Your task to perform on an android device: turn on wifi Image 0: 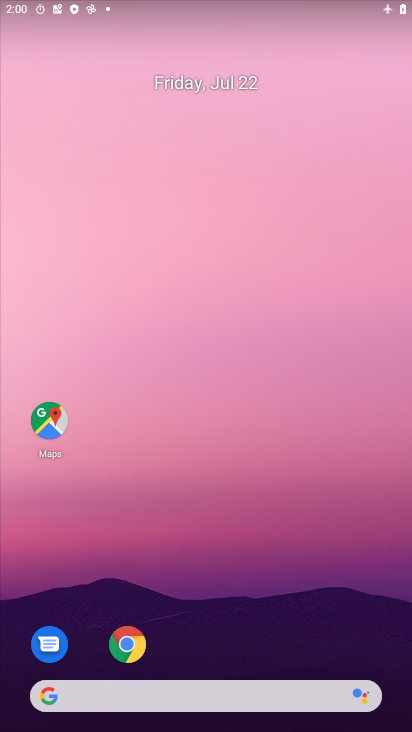
Step 0: drag from (231, 714) to (221, 199)
Your task to perform on an android device: turn on wifi Image 1: 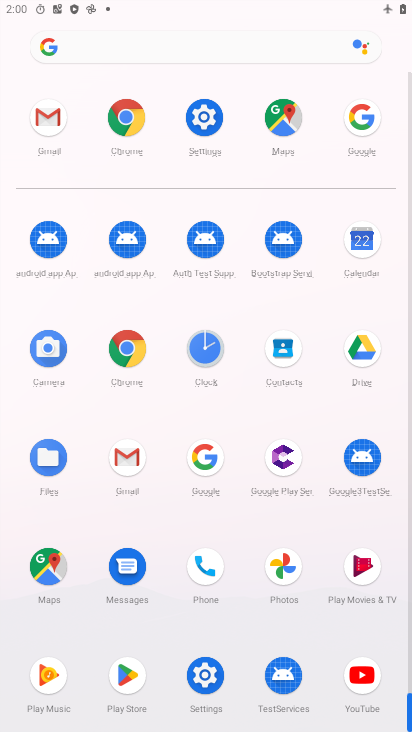
Step 1: click (211, 139)
Your task to perform on an android device: turn on wifi Image 2: 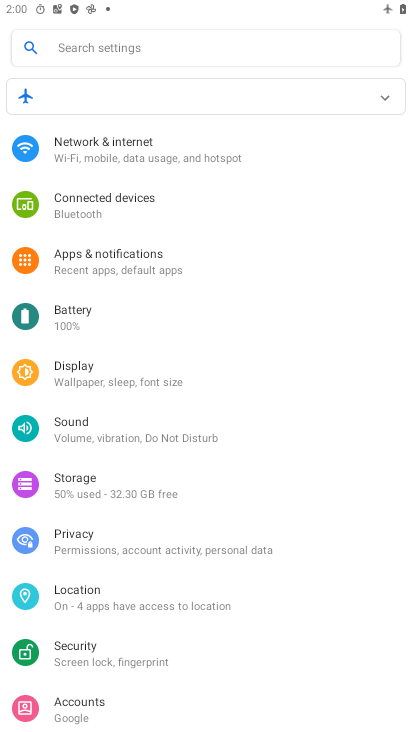
Step 2: click (208, 155)
Your task to perform on an android device: turn on wifi Image 3: 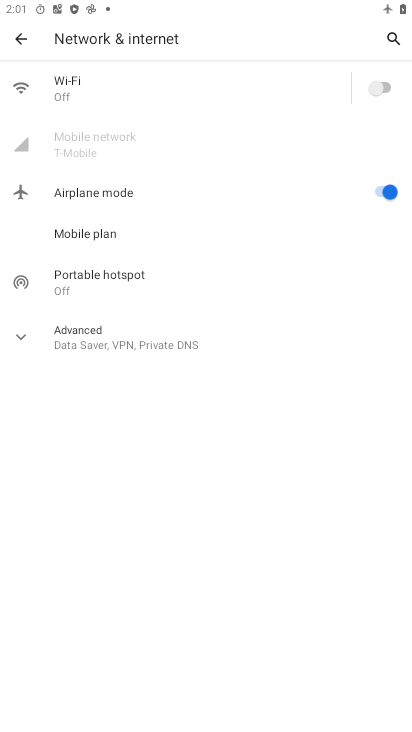
Step 3: click (392, 79)
Your task to perform on an android device: turn on wifi Image 4: 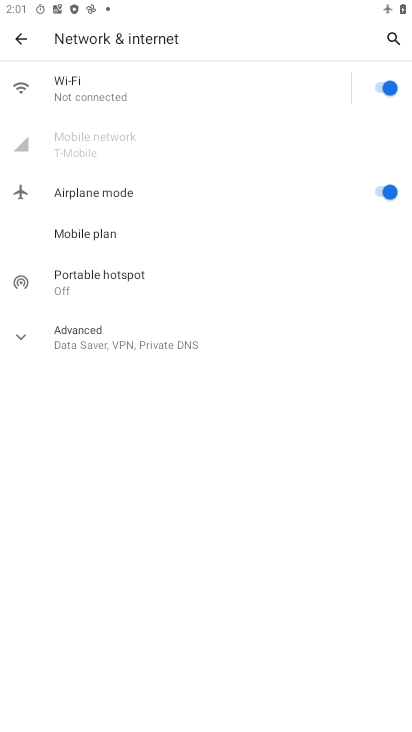
Step 4: click (389, 90)
Your task to perform on an android device: turn on wifi Image 5: 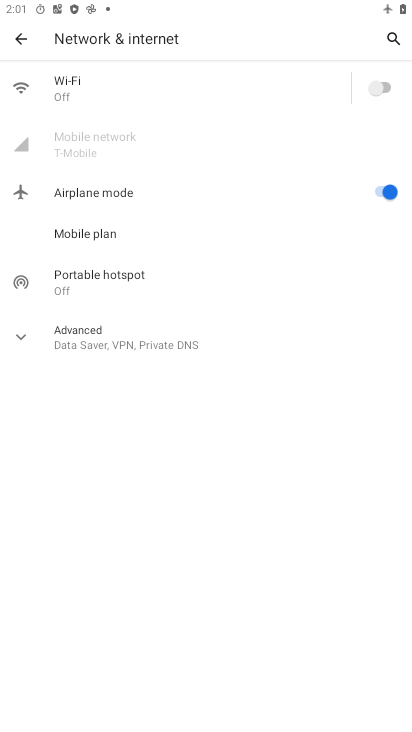
Step 5: task complete